Your task to perform on an android device: turn on showing notifications on the lock screen Image 0: 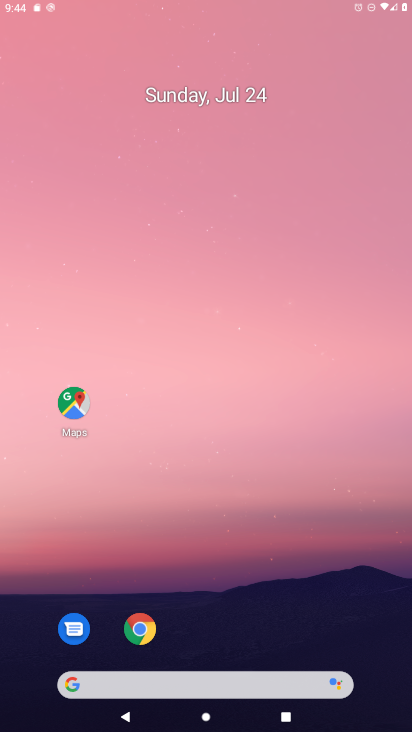
Step 0: drag from (335, 590) to (76, 14)
Your task to perform on an android device: turn on showing notifications on the lock screen Image 1: 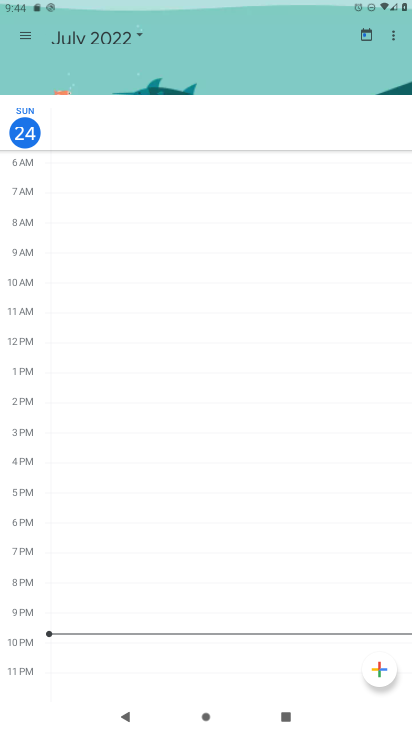
Step 1: press home button
Your task to perform on an android device: turn on showing notifications on the lock screen Image 2: 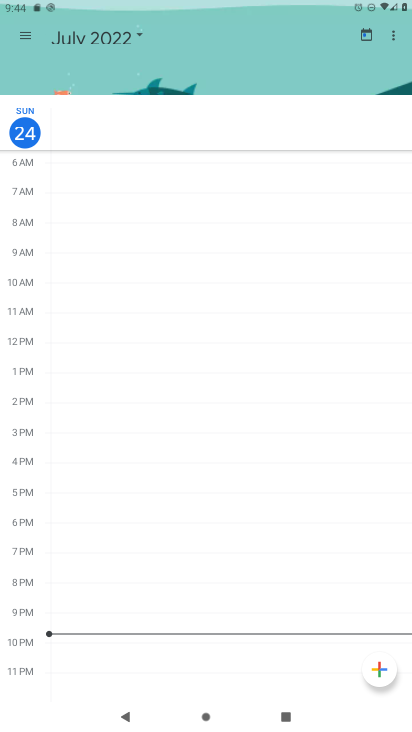
Step 2: drag from (348, 579) to (160, 9)
Your task to perform on an android device: turn on showing notifications on the lock screen Image 3: 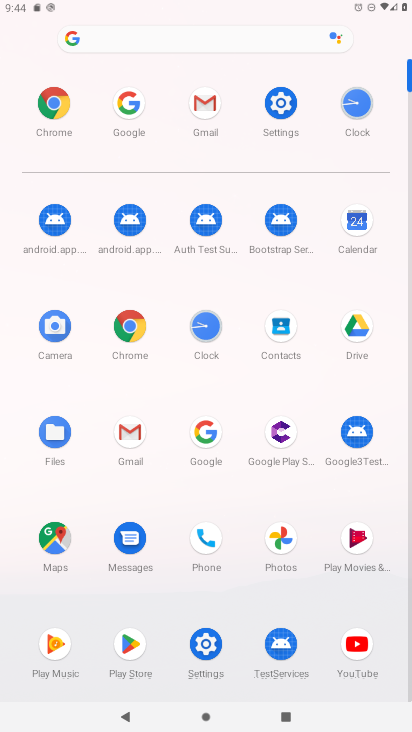
Step 3: click (191, 654)
Your task to perform on an android device: turn on showing notifications on the lock screen Image 4: 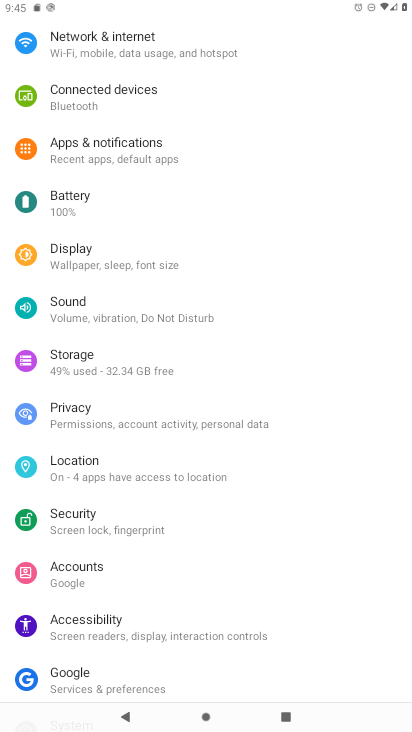
Step 4: click (110, 160)
Your task to perform on an android device: turn on showing notifications on the lock screen Image 5: 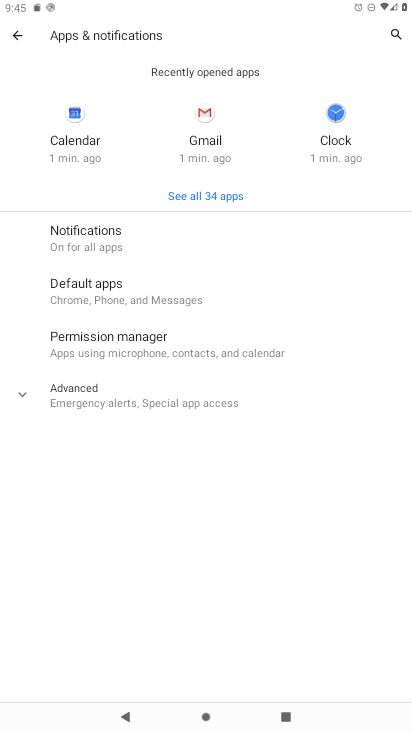
Step 5: click (102, 237)
Your task to perform on an android device: turn on showing notifications on the lock screen Image 6: 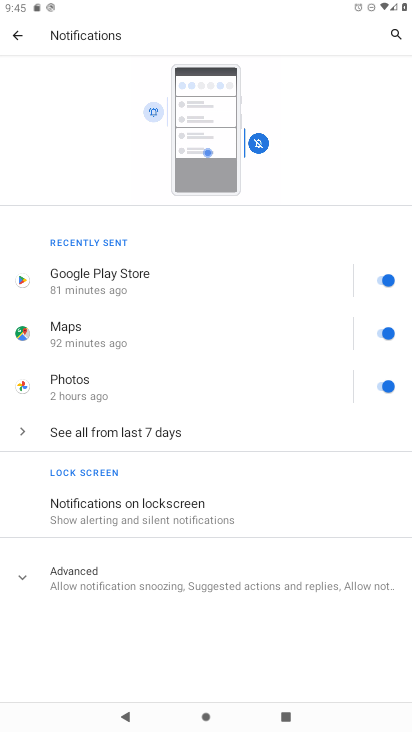
Step 6: click (144, 508)
Your task to perform on an android device: turn on showing notifications on the lock screen Image 7: 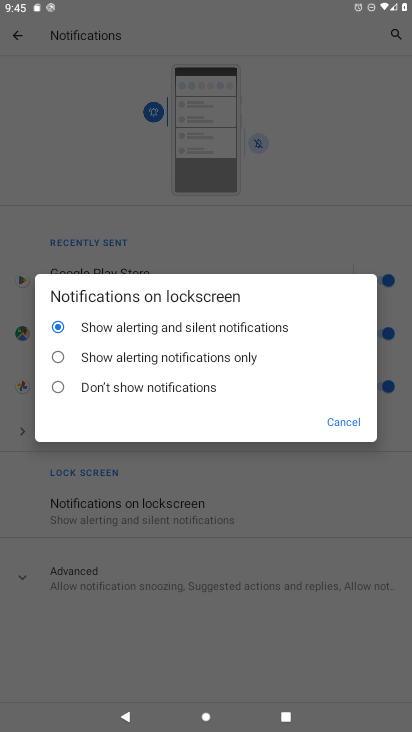
Step 7: task complete